Your task to perform on an android device: move a message to another label in the gmail app Image 0: 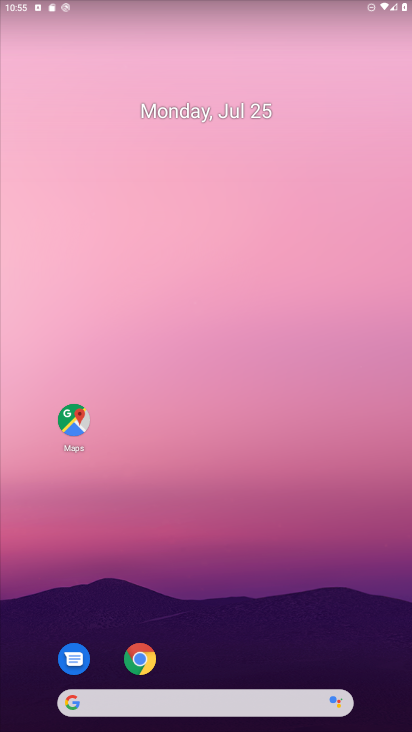
Step 0: drag from (206, 639) to (188, 233)
Your task to perform on an android device: move a message to another label in the gmail app Image 1: 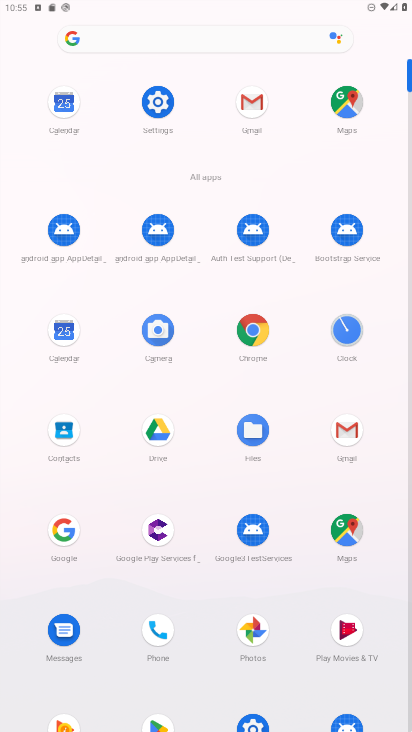
Step 1: click (244, 125)
Your task to perform on an android device: move a message to another label in the gmail app Image 2: 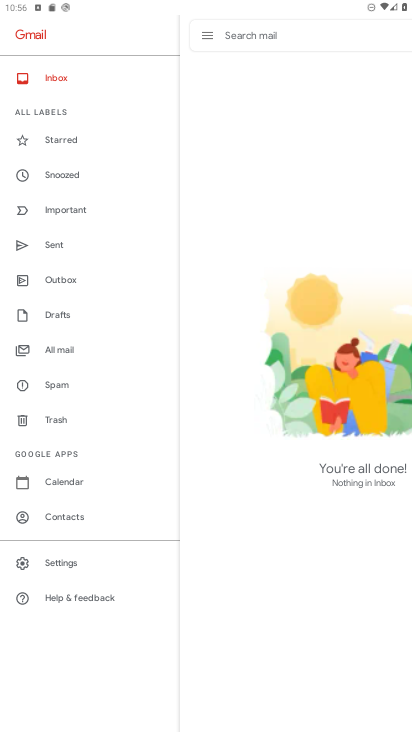
Step 2: click (58, 353)
Your task to perform on an android device: move a message to another label in the gmail app Image 3: 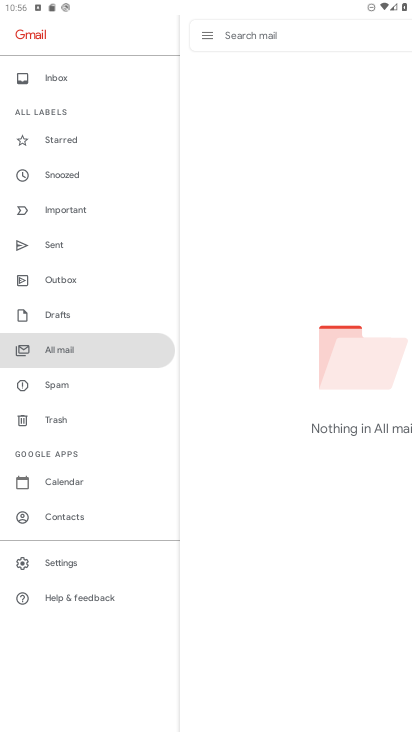
Step 3: task complete